Your task to perform on an android device: What's on my calendar today? Image 0: 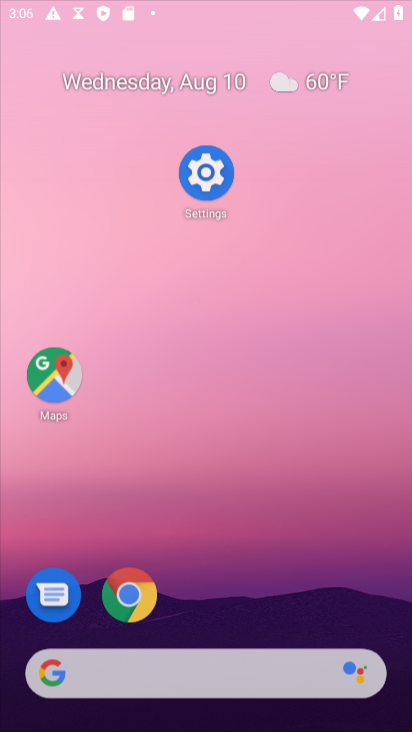
Step 0: press home button
Your task to perform on an android device: What's on my calendar today? Image 1: 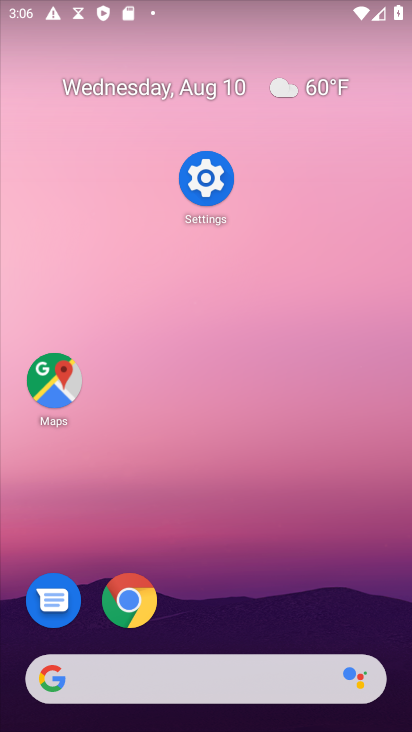
Step 1: drag from (238, 619) to (280, 73)
Your task to perform on an android device: What's on my calendar today? Image 2: 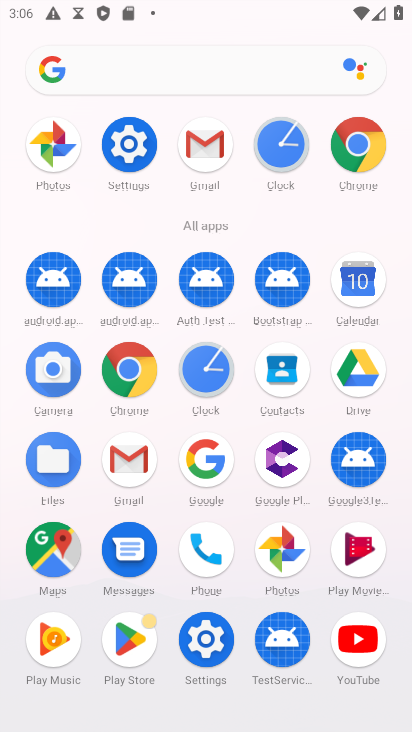
Step 2: click (362, 286)
Your task to perform on an android device: What's on my calendar today? Image 3: 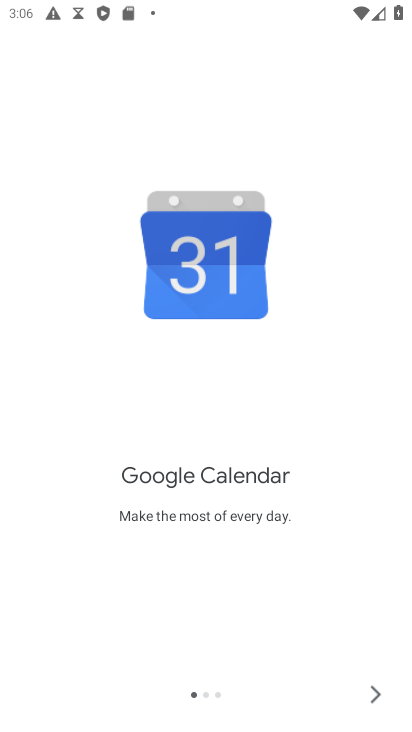
Step 3: click (373, 703)
Your task to perform on an android device: What's on my calendar today? Image 4: 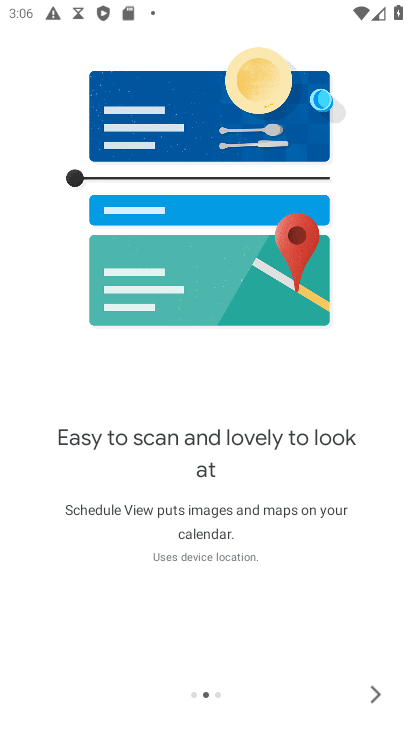
Step 4: click (379, 700)
Your task to perform on an android device: What's on my calendar today? Image 5: 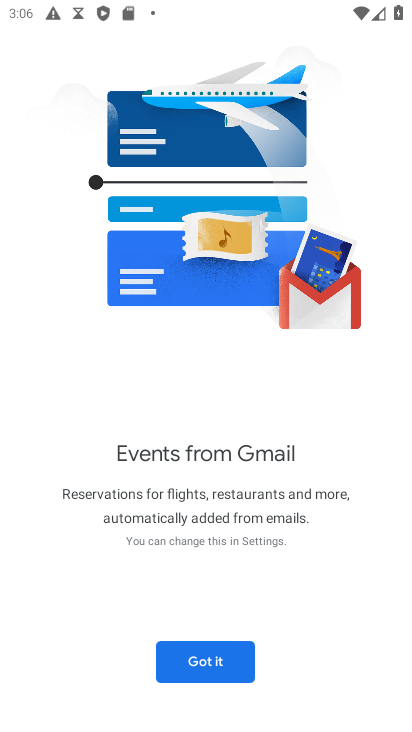
Step 5: click (191, 673)
Your task to perform on an android device: What's on my calendar today? Image 6: 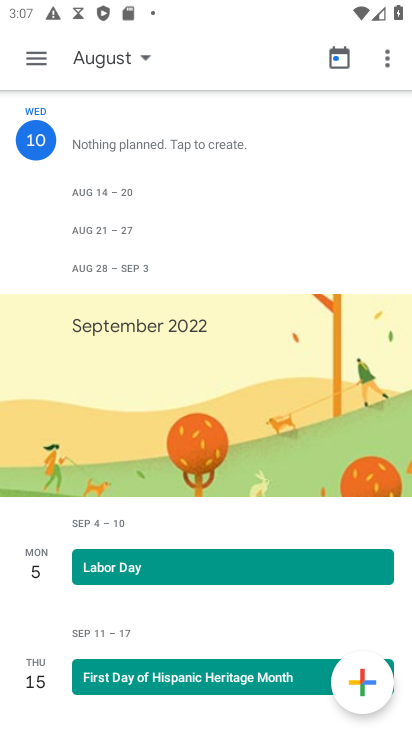
Step 6: click (150, 60)
Your task to perform on an android device: What's on my calendar today? Image 7: 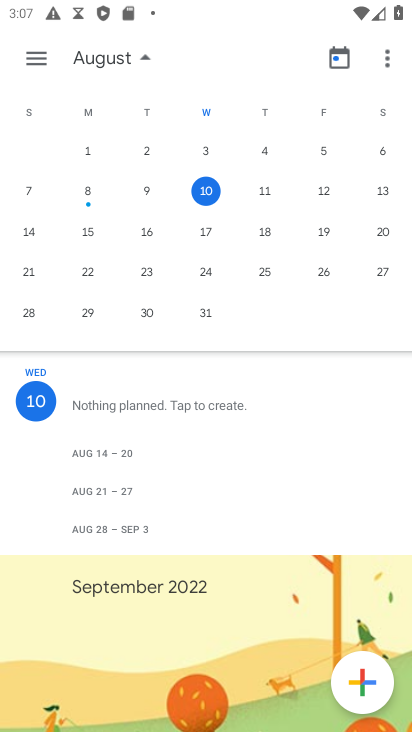
Step 7: click (202, 199)
Your task to perform on an android device: What's on my calendar today? Image 8: 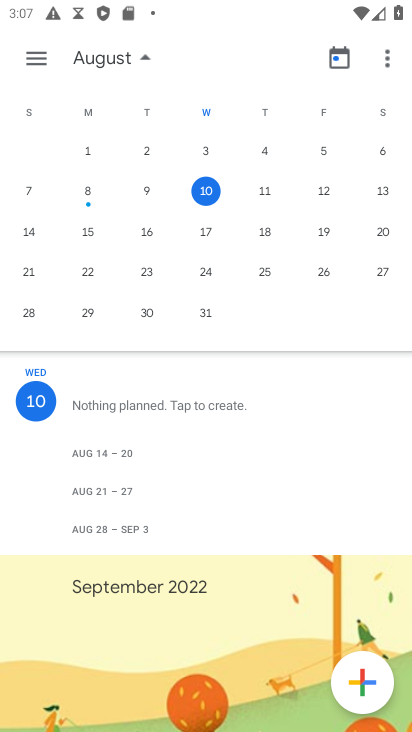
Step 8: task complete